Your task to perform on an android device: search for starred emails in the gmail app Image 0: 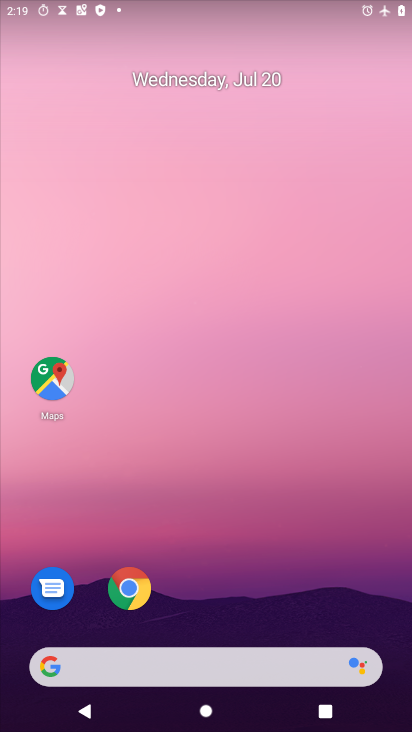
Step 0: drag from (295, 648) to (266, 7)
Your task to perform on an android device: search for starred emails in the gmail app Image 1: 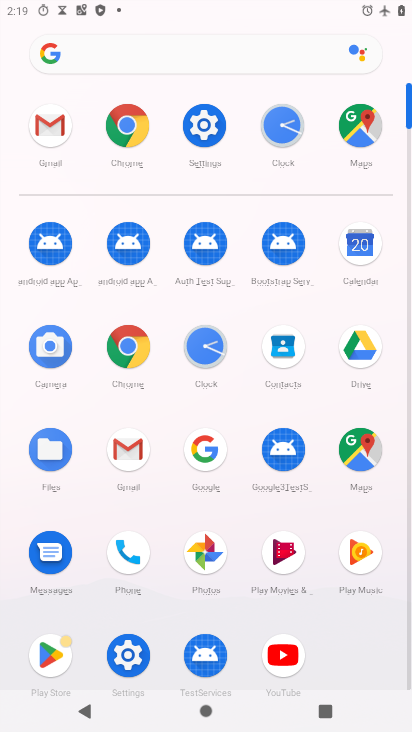
Step 1: click (127, 459)
Your task to perform on an android device: search for starred emails in the gmail app Image 2: 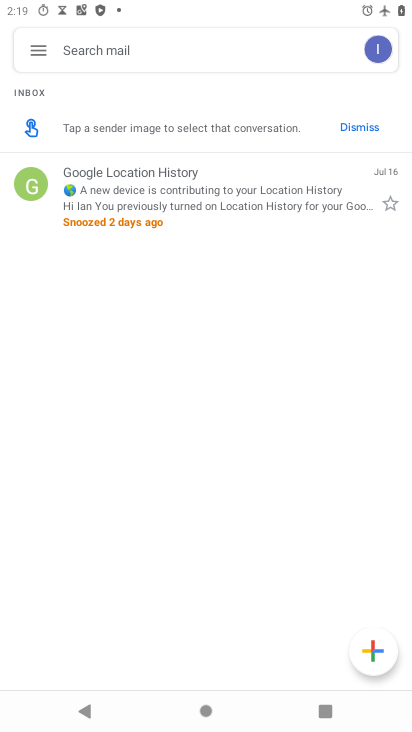
Step 2: click (43, 53)
Your task to perform on an android device: search for starred emails in the gmail app Image 3: 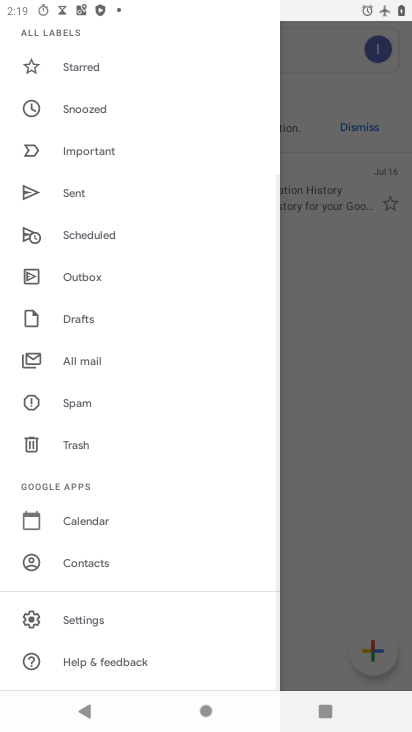
Step 3: click (139, 620)
Your task to perform on an android device: search for starred emails in the gmail app Image 4: 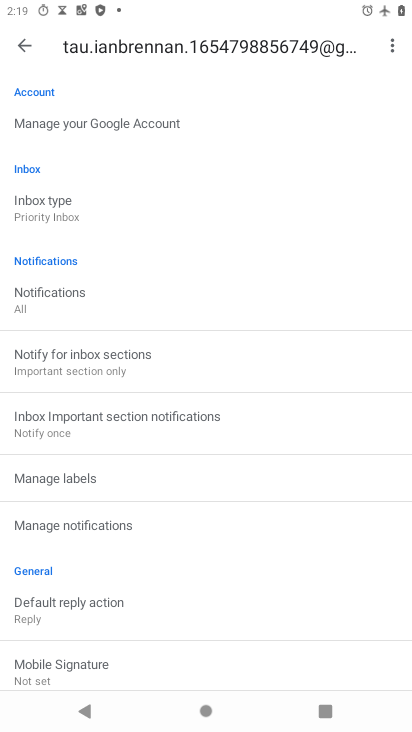
Step 4: press back button
Your task to perform on an android device: search for starred emails in the gmail app Image 5: 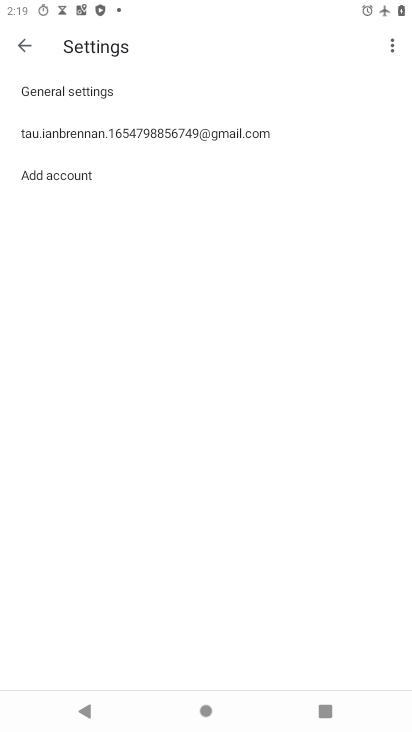
Step 5: press back button
Your task to perform on an android device: search for starred emails in the gmail app Image 6: 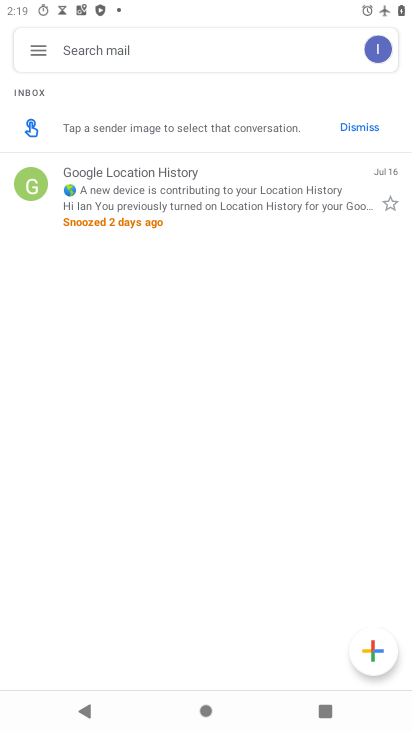
Step 6: click (36, 55)
Your task to perform on an android device: search for starred emails in the gmail app Image 7: 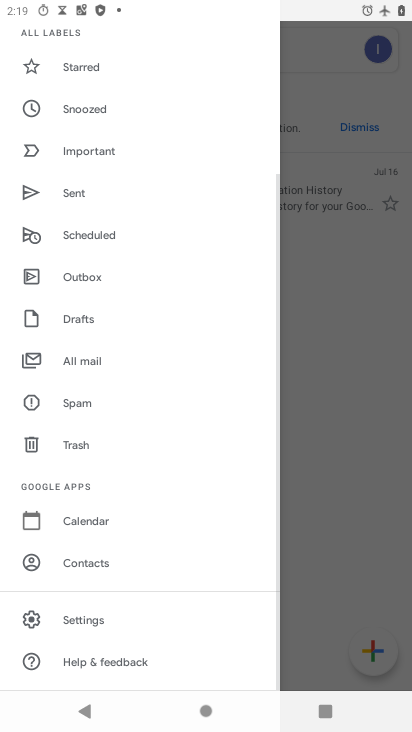
Step 7: click (101, 64)
Your task to perform on an android device: search for starred emails in the gmail app Image 8: 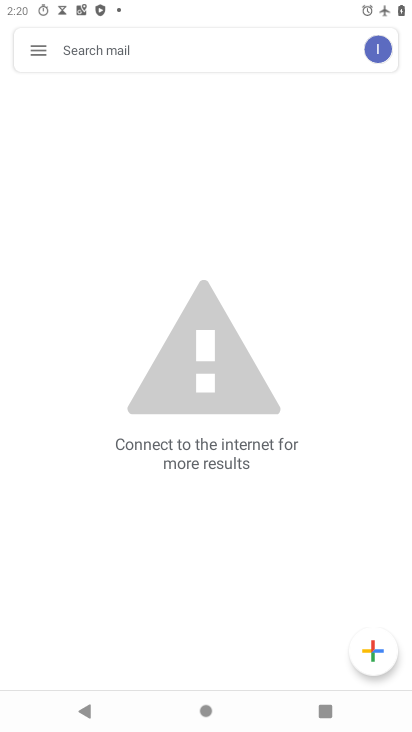
Step 8: task complete